Your task to perform on an android device: Open Chrome and go to the settings page Image 0: 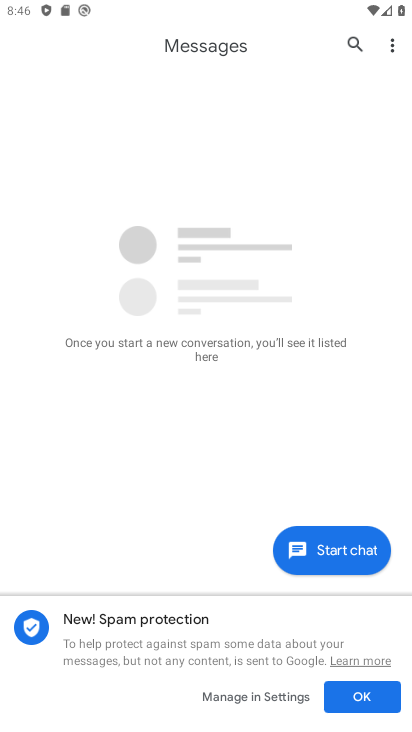
Step 0: press home button
Your task to perform on an android device: Open Chrome and go to the settings page Image 1: 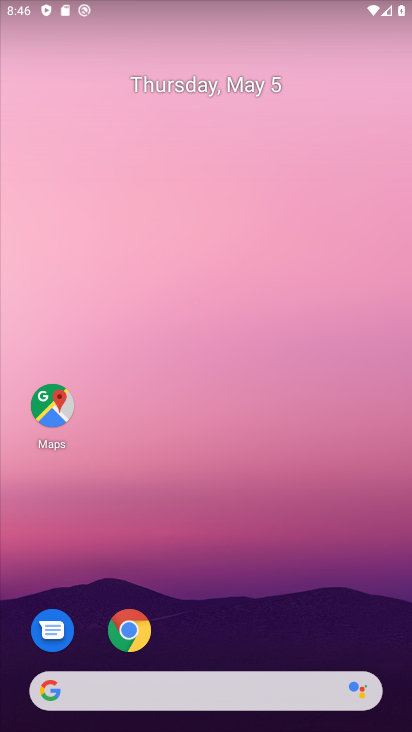
Step 1: click (118, 646)
Your task to perform on an android device: Open Chrome and go to the settings page Image 2: 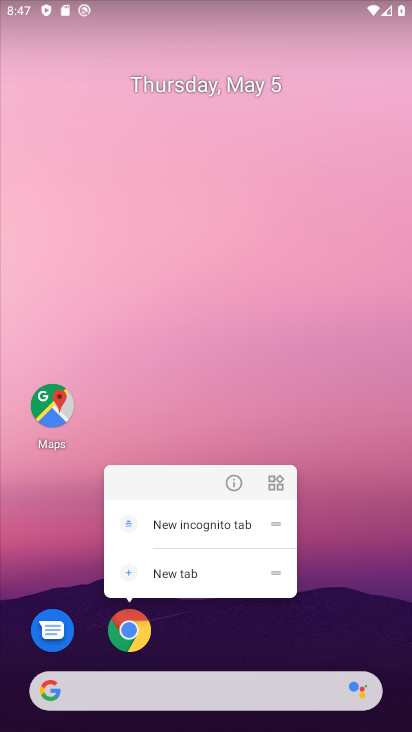
Step 2: click (119, 632)
Your task to perform on an android device: Open Chrome and go to the settings page Image 3: 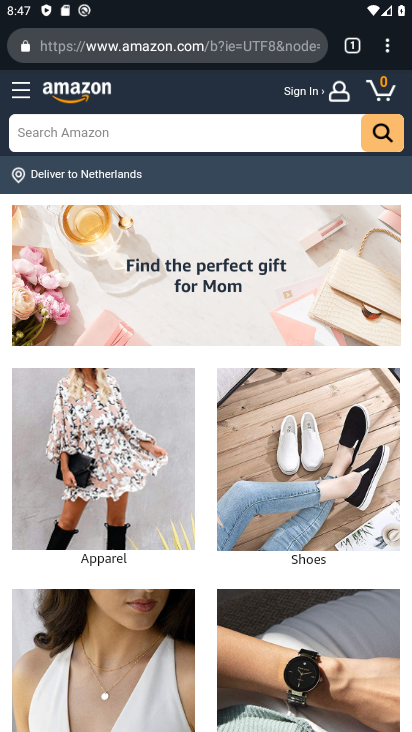
Step 3: click (392, 42)
Your task to perform on an android device: Open Chrome and go to the settings page Image 4: 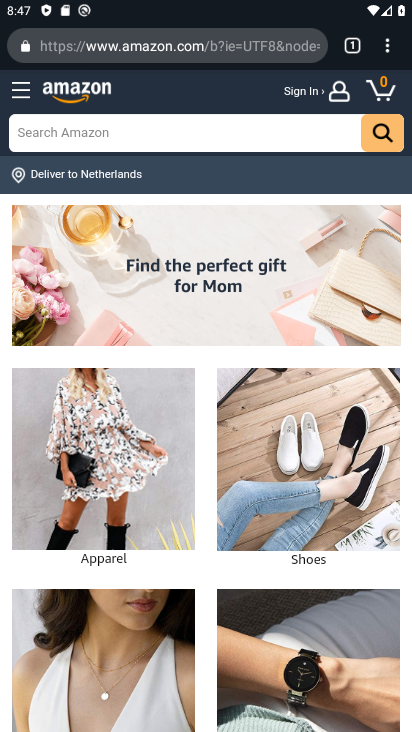
Step 4: click (390, 45)
Your task to perform on an android device: Open Chrome and go to the settings page Image 5: 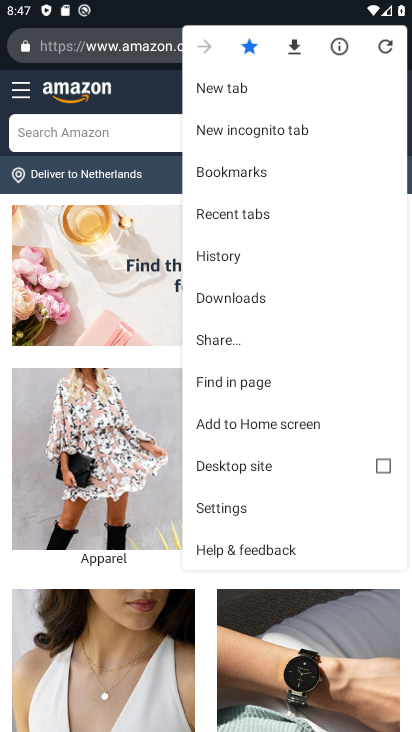
Step 5: click (283, 507)
Your task to perform on an android device: Open Chrome and go to the settings page Image 6: 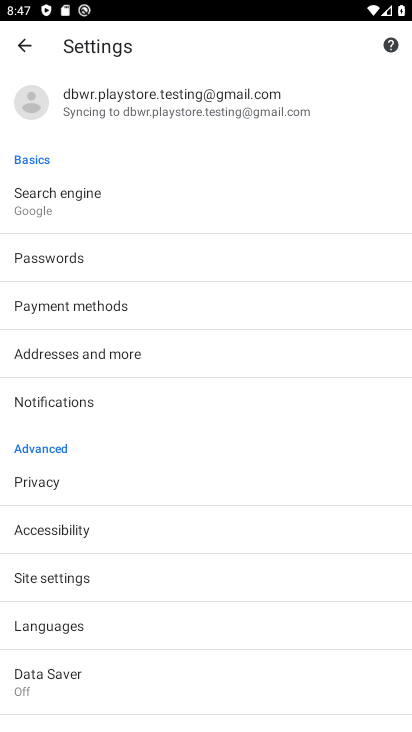
Step 6: task complete